Your task to perform on an android device: empty trash in the gmail app Image 0: 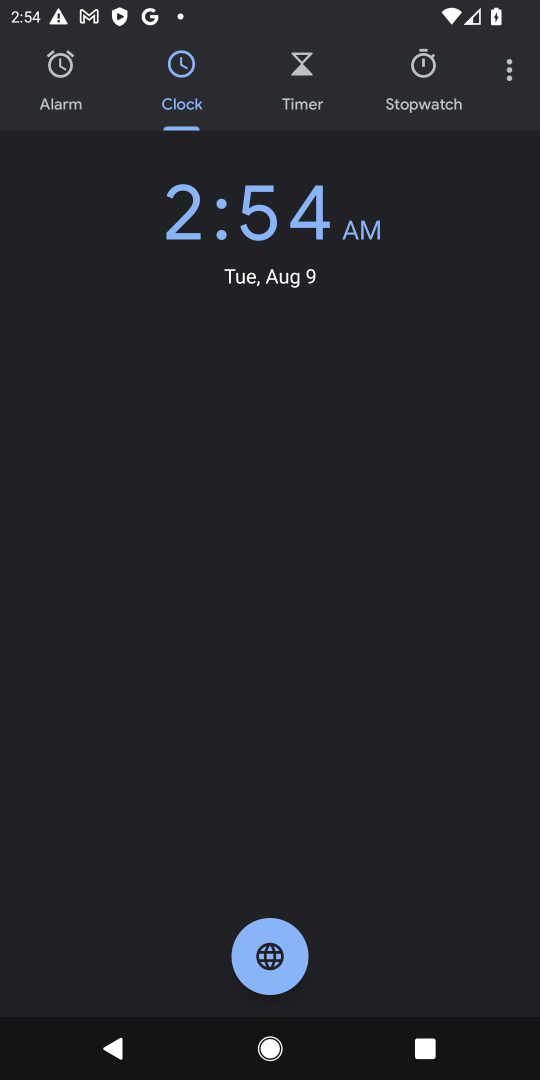
Step 0: press home button
Your task to perform on an android device: empty trash in the gmail app Image 1: 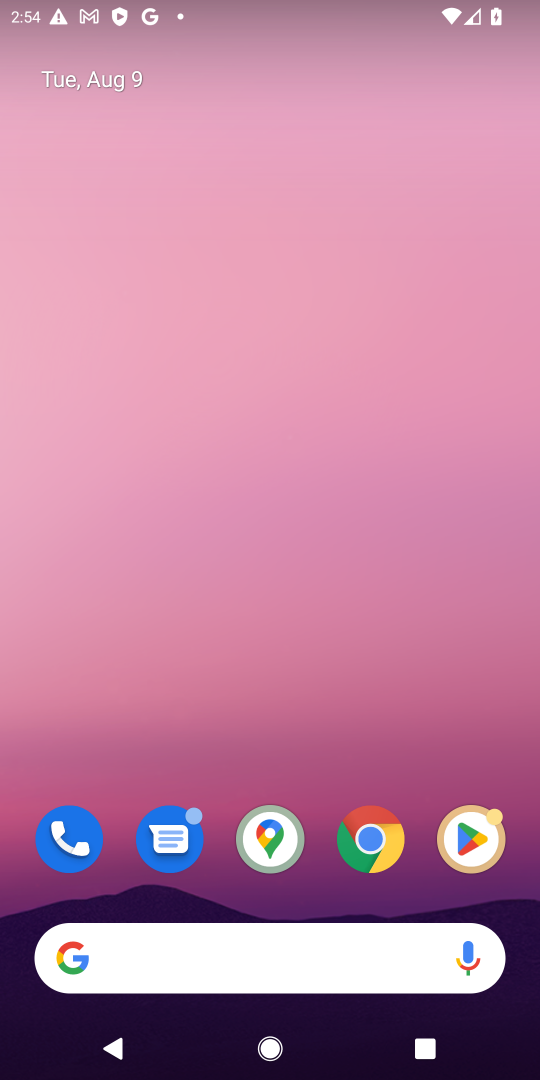
Step 1: drag from (276, 755) to (320, 43)
Your task to perform on an android device: empty trash in the gmail app Image 2: 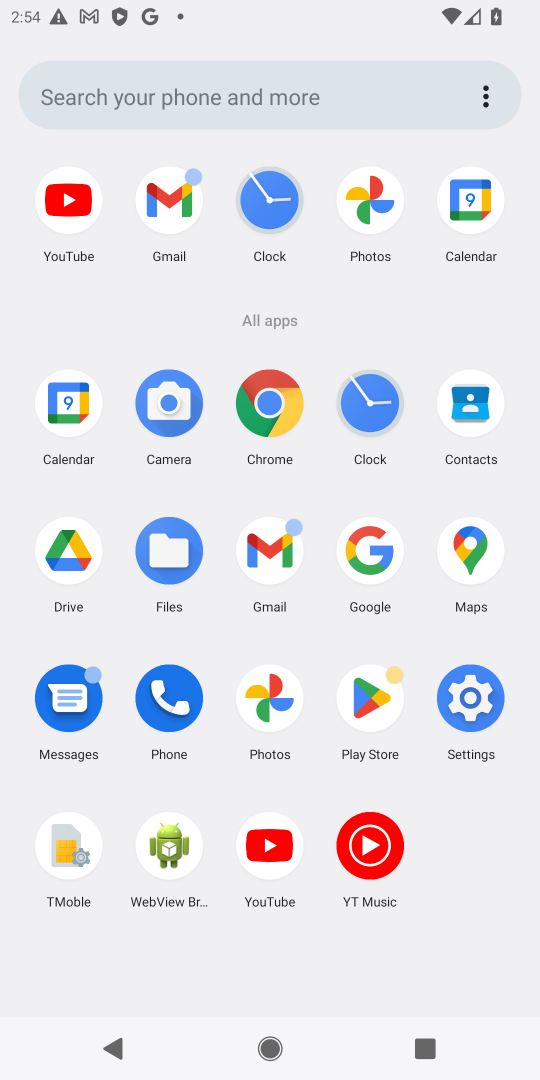
Step 2: click (160, 202)
Your task to perform on an android device: empty trash in the gmail app Image 3: 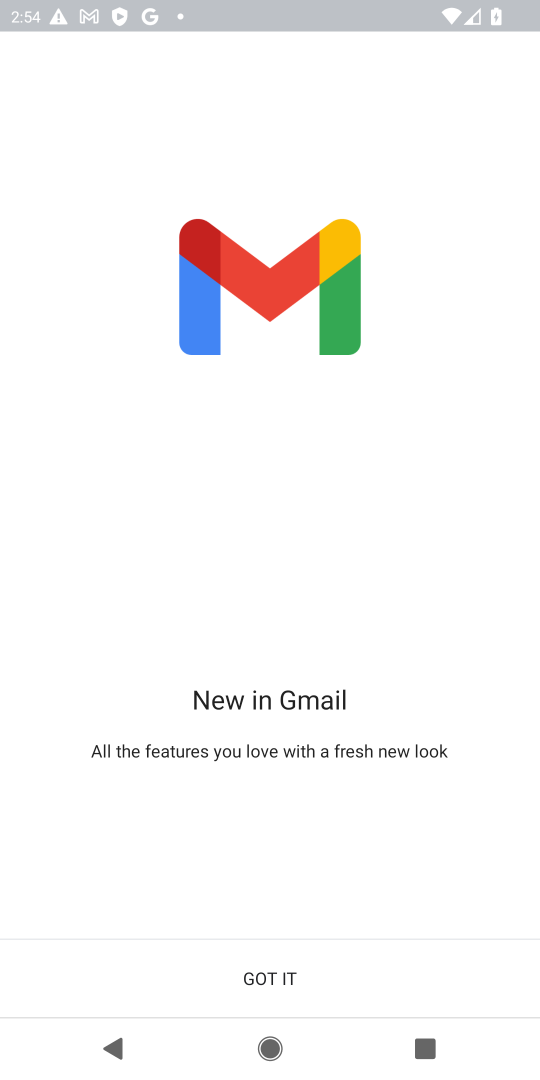
Step 3: click (257, 981)
Your task to perform on an android device: empty trash in the gmail app Image 4: 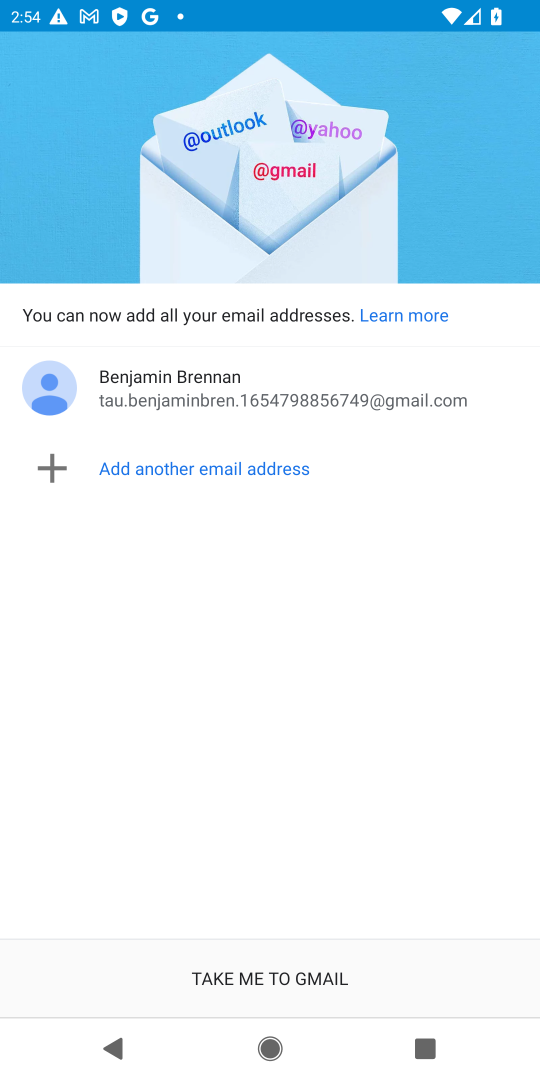
Step 4: click (274, 967)
Your task to perform on an android device: empty trash in the gmail app Image 5: 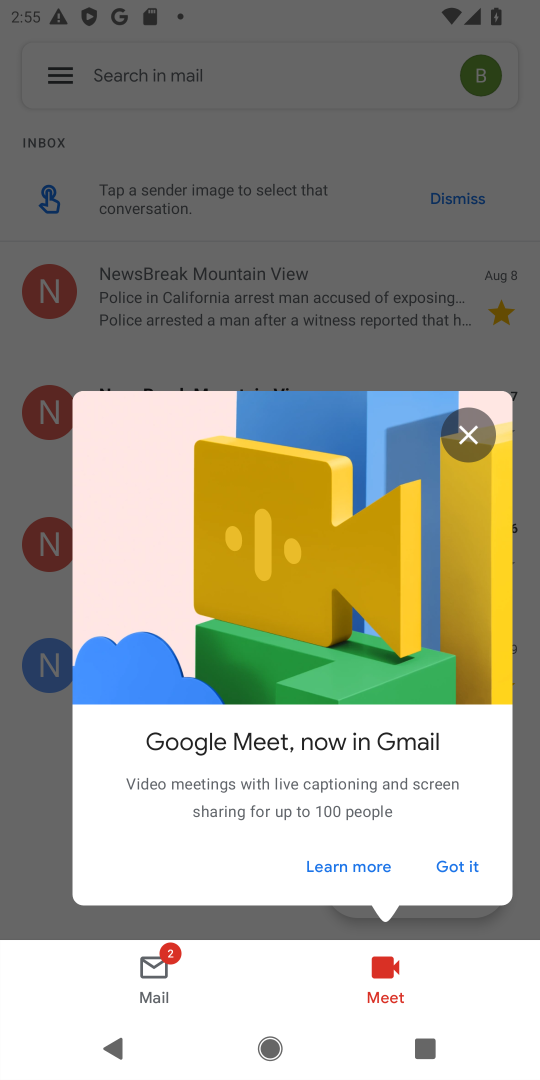
Step 5: click (471, 870)
Your task to perform on an android device: empty trash in the gmail app Image 6: 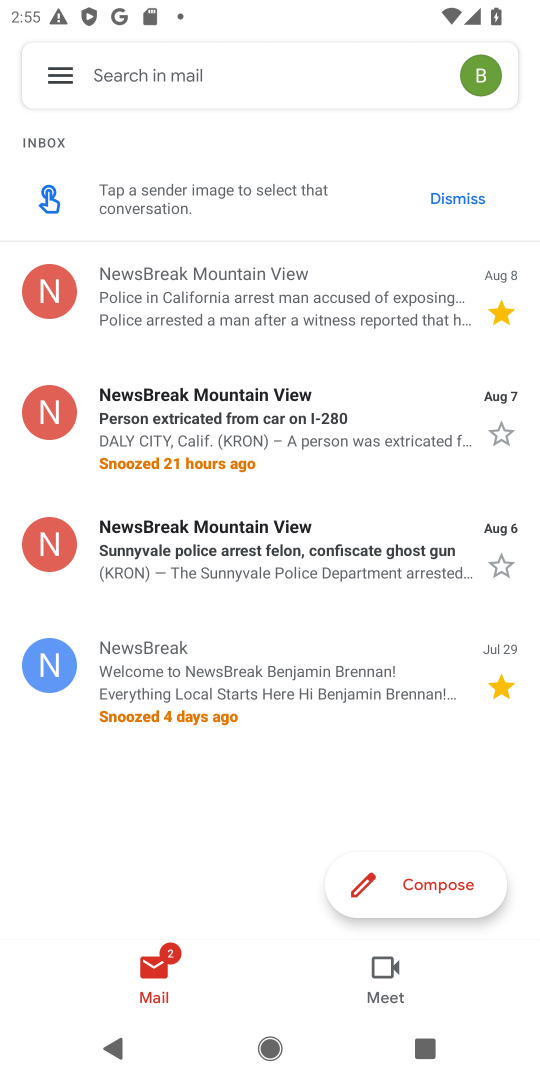
Step 6: click (65, 67)
Your task to perform on an android device: empty trash in the gmail app Image 7: 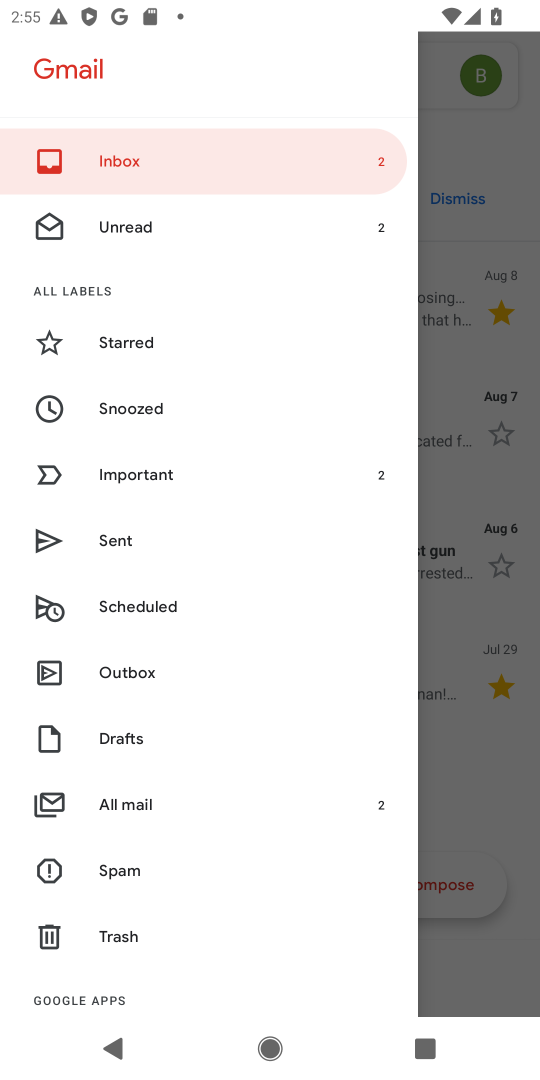
Step 7: click (129, 934)
Your task to perform on an android device: empty trash in the gmail app Image 8: 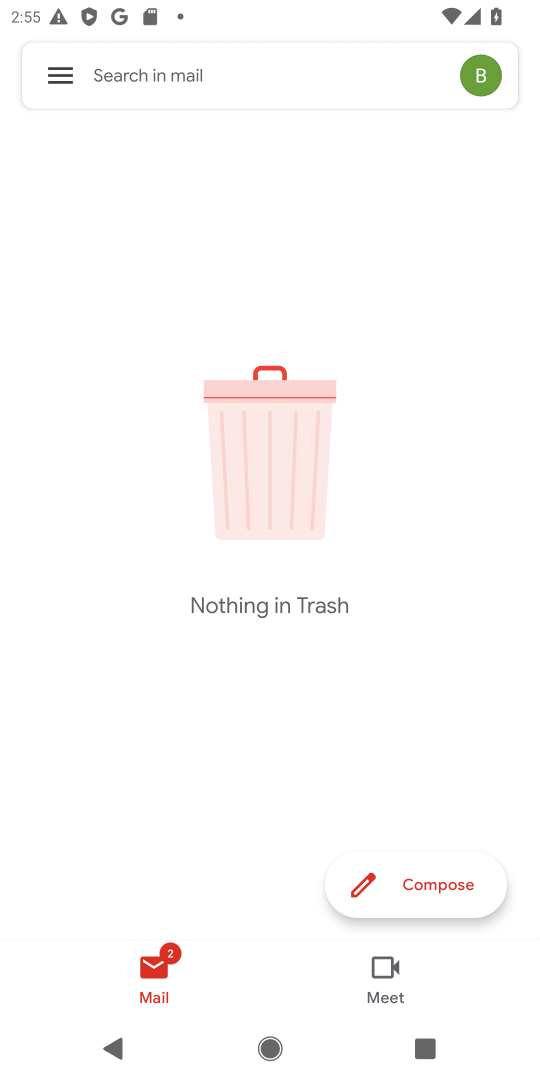
Step 8: task complete